Your task to perform on an android device: turn off location history Image 0: 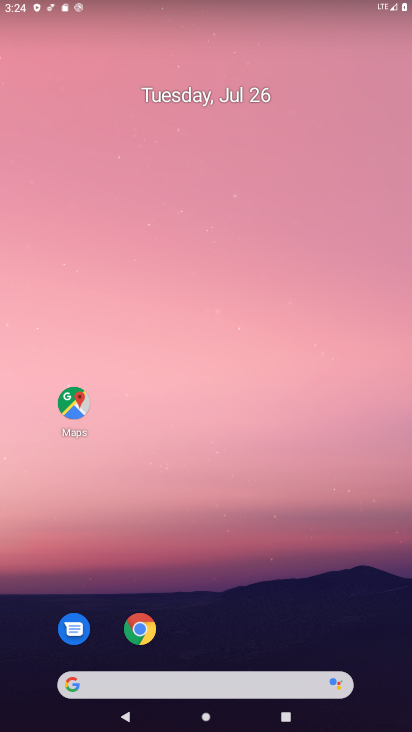
Step 0: drag from (227, 712) to (227, 417)
Your task to perform on an android device: turn off location history Image 1: 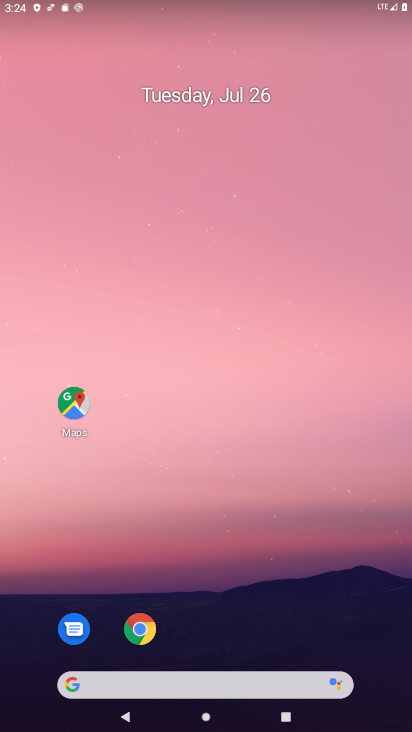
Step 1: drag from (218, 721) to (256, 100)
Your task to perform on an android device: turn off location history Image 2: 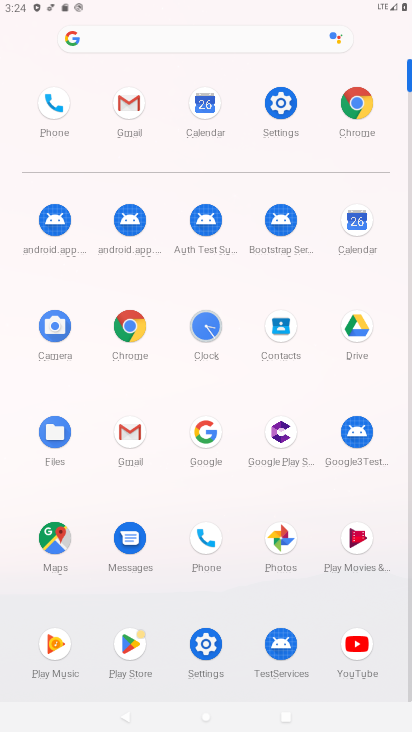
Step 2: click (277, 105)
Your task to perform on an android device: turn off location history Image 3: 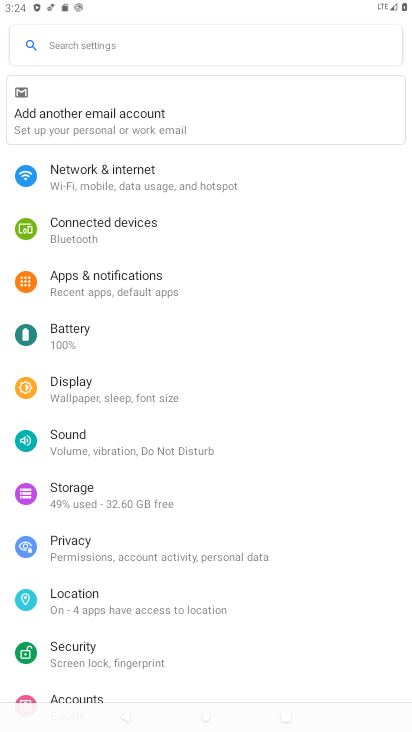
Step 3: click (78, 596)
Your task to perform on an android device: turn off location history Image 4: 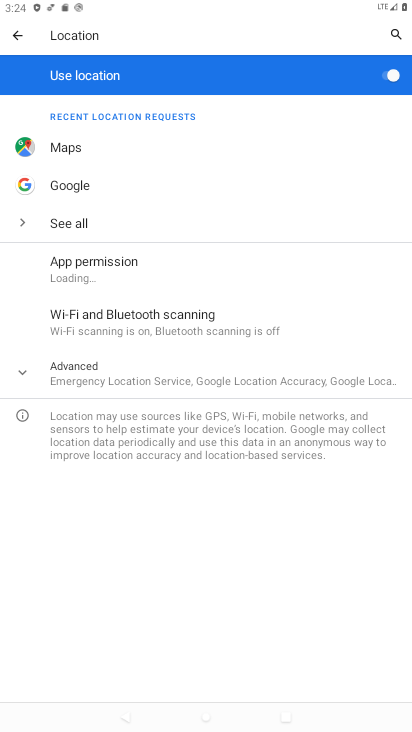
Step 4: click (103, 381)
Your task to perform on an android device: turn off location history Image 5: 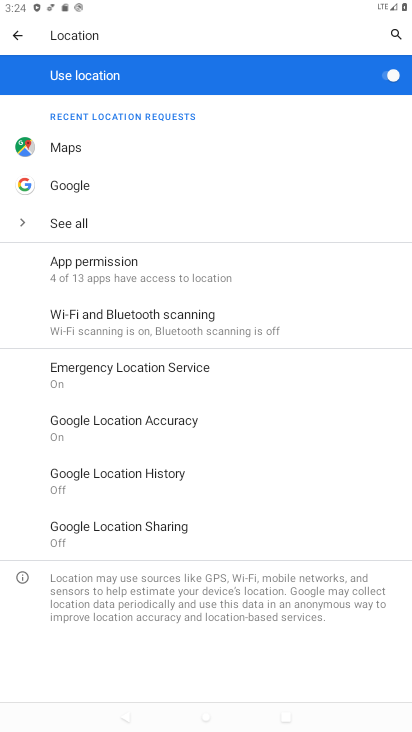
Step 5: click (134, 472)
Your task to perform on an android device: turn off location history Image 6: 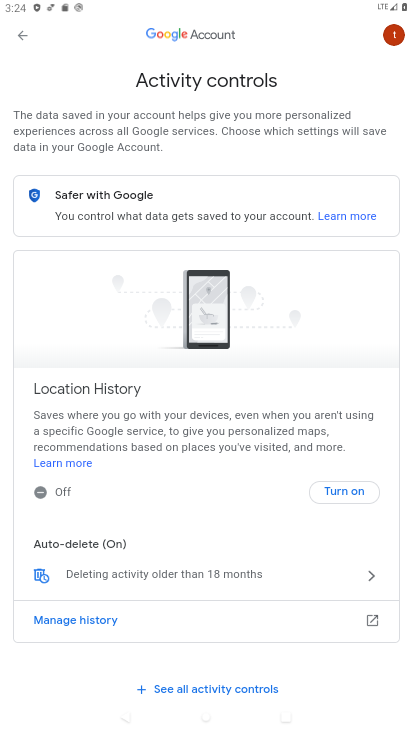
Step 6: task complete